Your task to perform on an android device: turn on airplane mode Image 0: 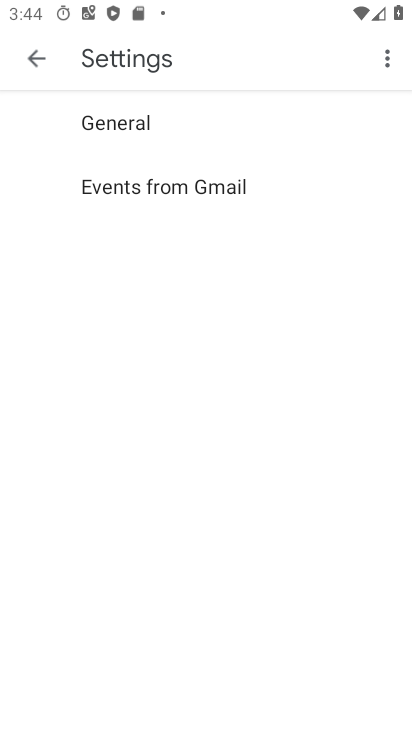
Step 0: press back button
Your task to perform on an android device: turn on airplane mode Image 1: 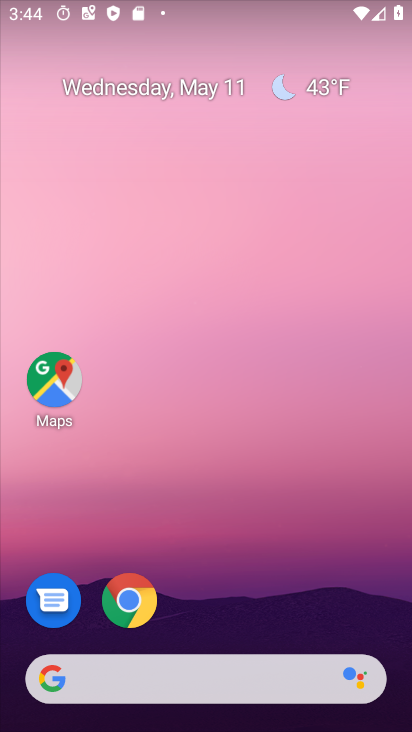
Step 1: drag from (289, 604) to (91, 163)
Your task to perform on an android device: turn on airplane mode Image 2: 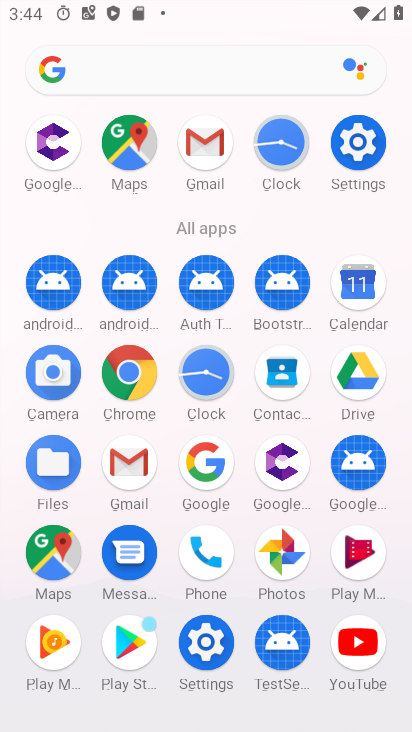
Step 2: click (352, 151)
Your task to perform on an android device: turn on airplane mode Image 3: 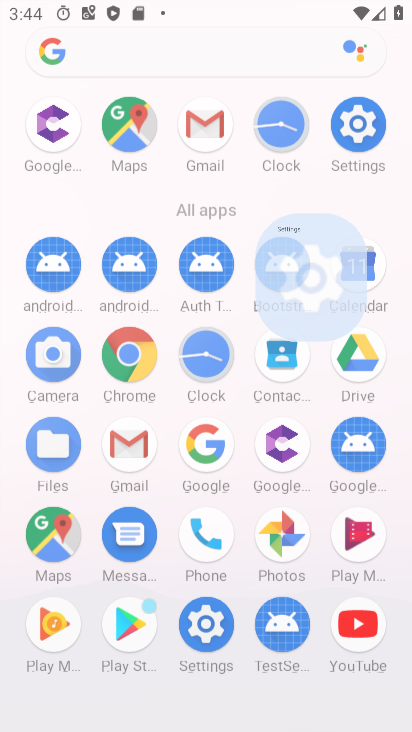
Step 3: click (353, 149)
Your task to perform on an android device: turn on airplane mode Image 4: 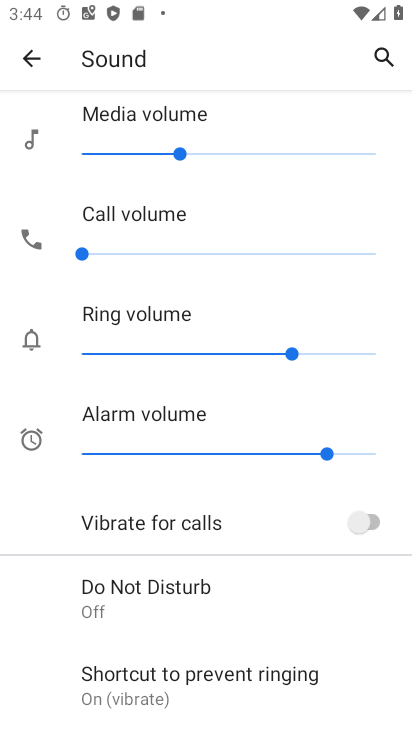
Step 4: click (26, 53)
Your task to perform on an android device: turn on airplane mode Image 5: 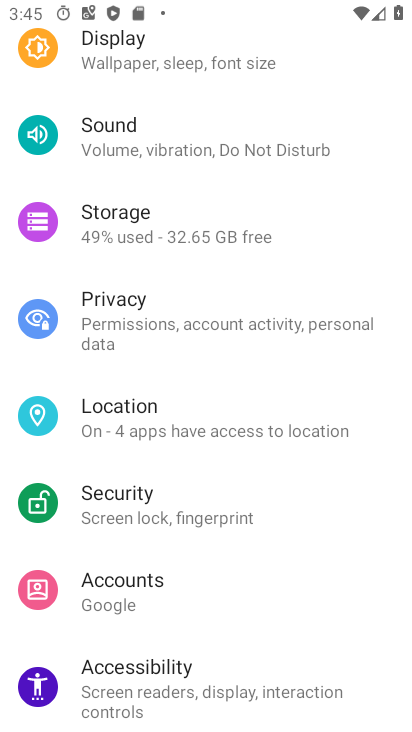
Step 5: drag from (124, 191) to (213, 534)
Your task to perform on an android device: turn on airplane mode Image 6: 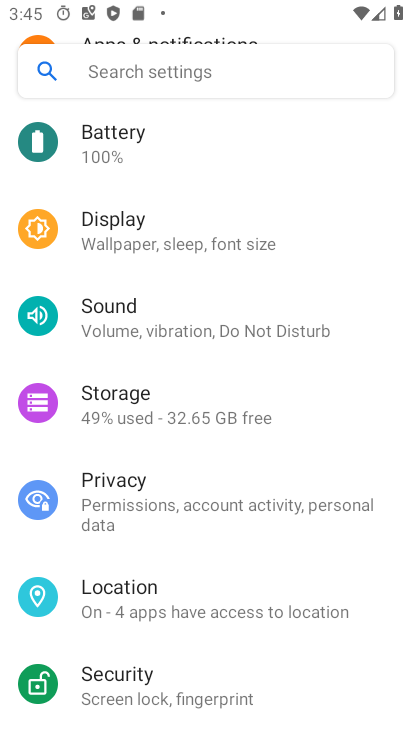
Step 6: drag from (211, 240) to (253, 583)
Your task to perform on an android device: turn on airplane mode Image 7: 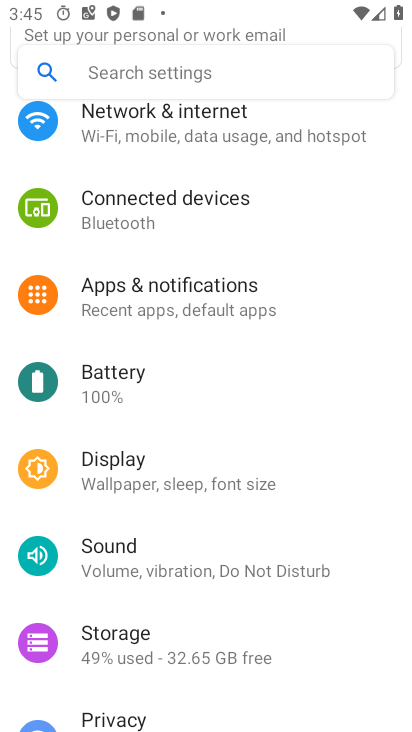
Step 7: drag from (248, 341) to (271, 492)
Your task to perform on an android device: turn on airplane mode Image 8: 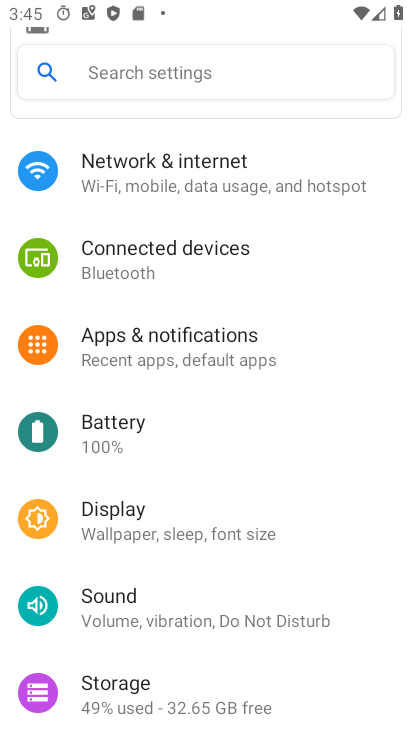
Step 8: click (183, 182)
Your task to perform on an android device: turn on airplane mode Image 9: 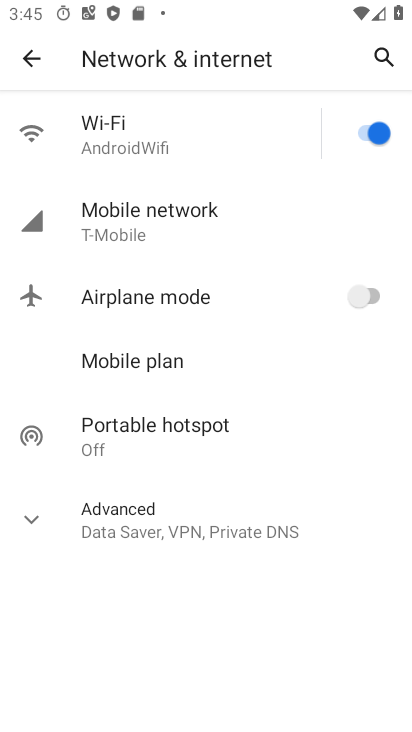
Step 9: click (354, 289)
Your task to perform on an android device: turn on airplane mode Image 10: 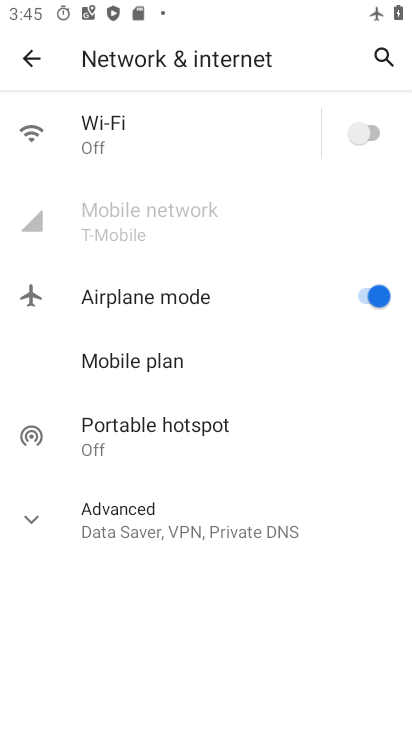
Step 10: task complete